Your task to perform on an android device: open app "Duolingo: language lessons" Image 0: 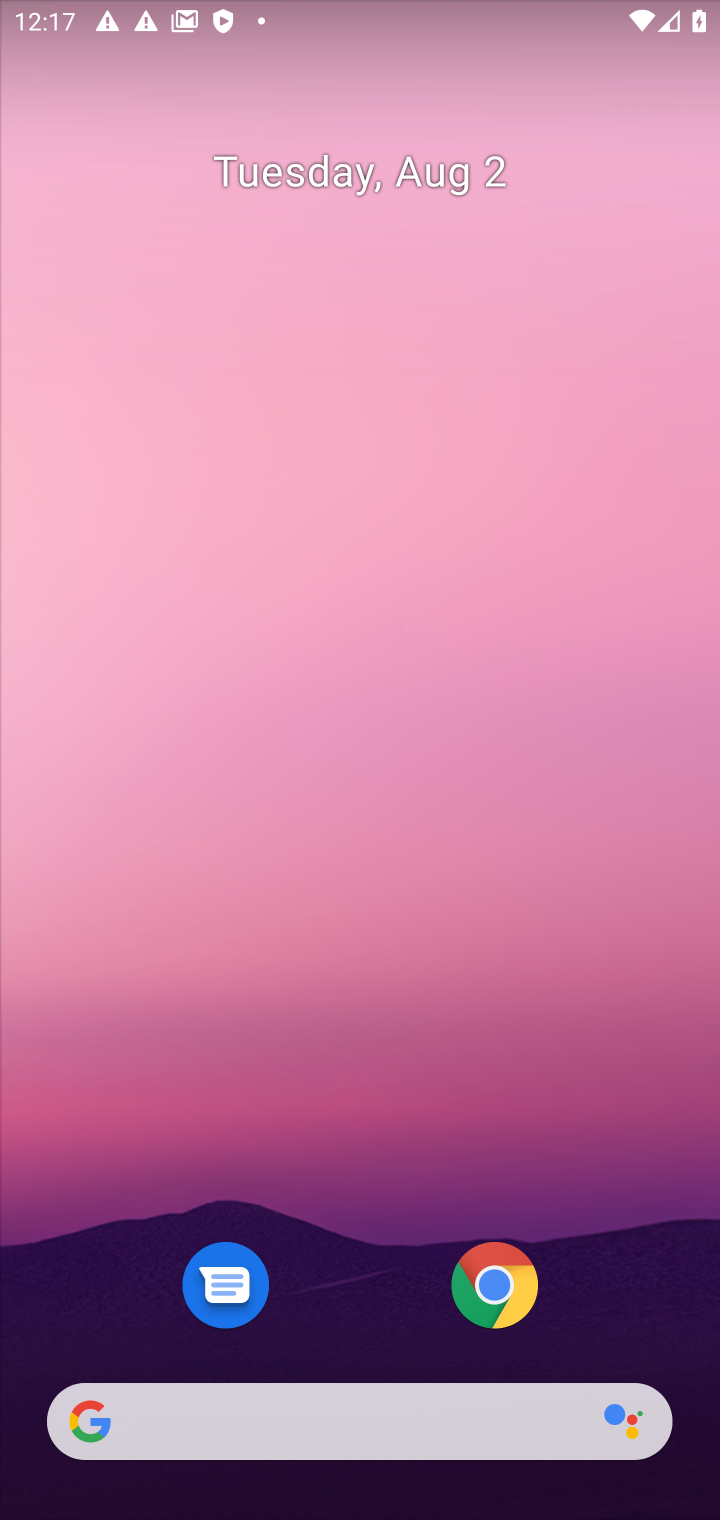
Step 0: click (546, 266)
Your task to perform on an android device: open app "Duolingo: language lessons" Image 1: 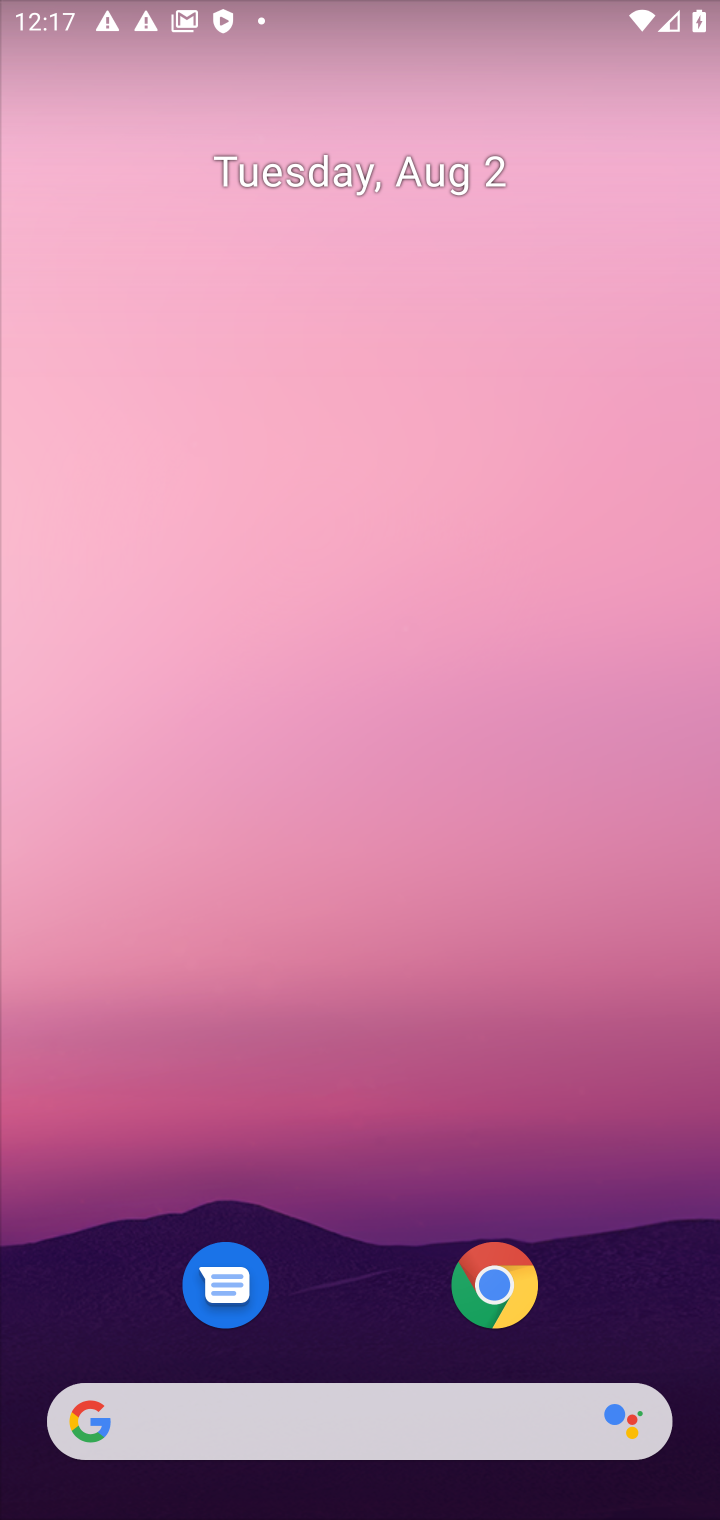
Step 1: drag from (374, 1248) to (433, 290)
Your task to perform on an android device: open app "Duolingo: language lessons" Image 2: 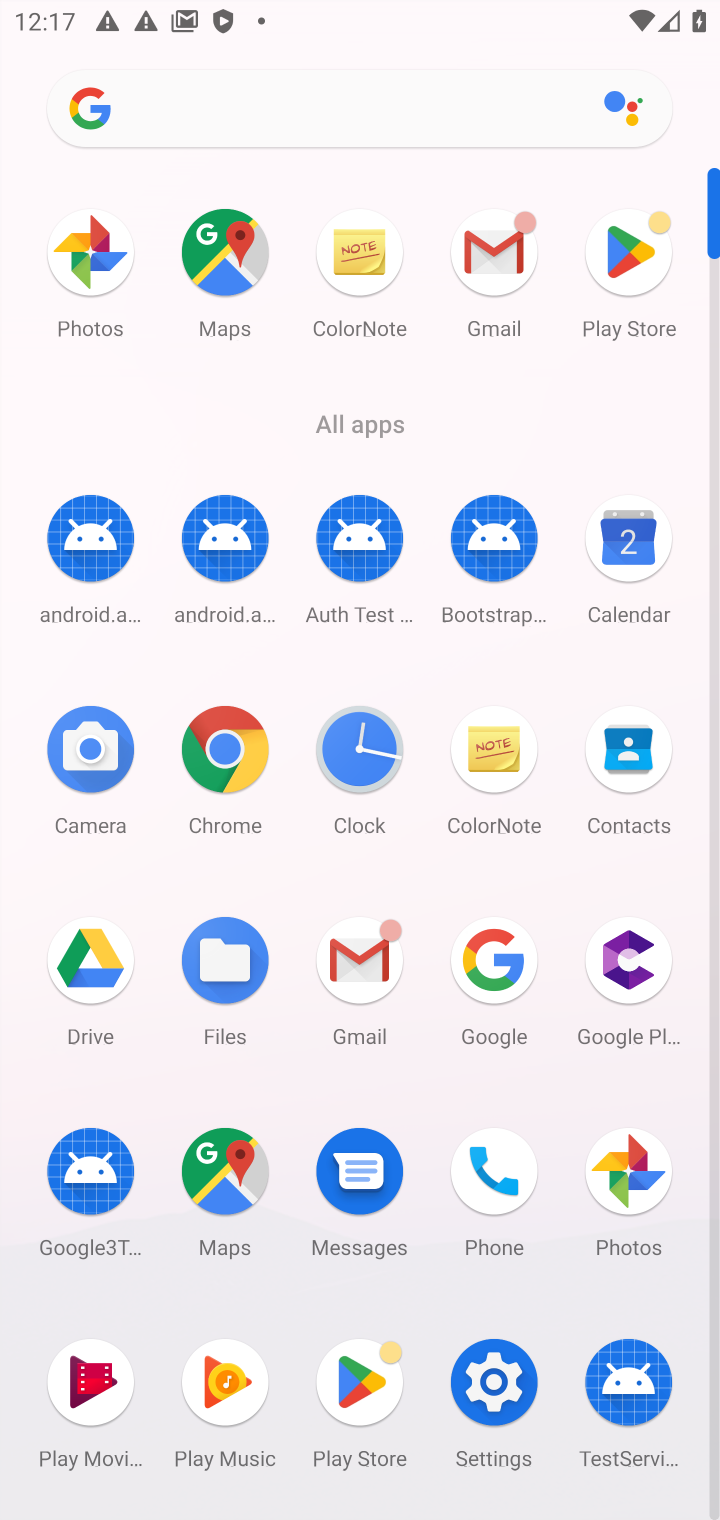
Step 2: click (367, 1377)
Your task to perform on an android device: open app "Duolingo: language lessons" Image 3: 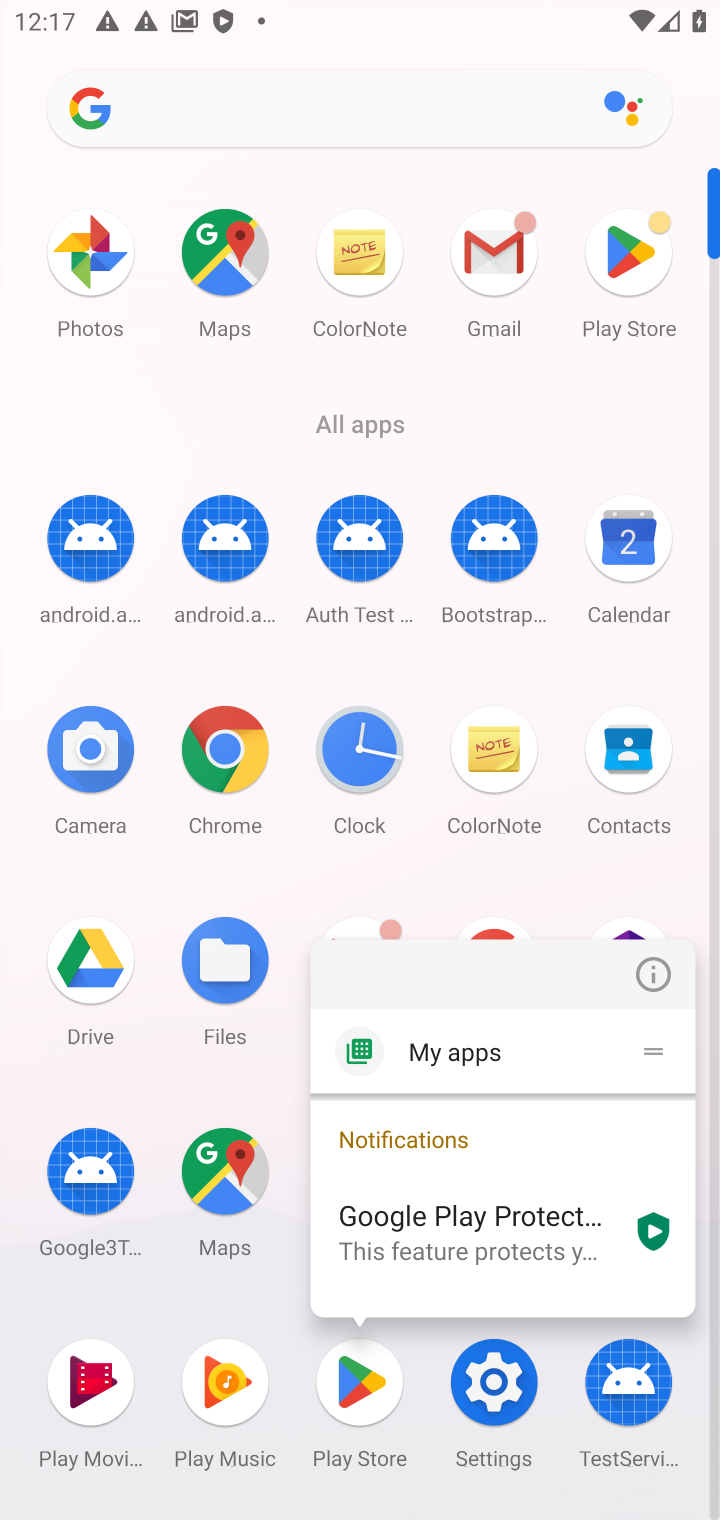
Step 3: click (351, 1369)
Your task to perform on an android device: open app "Duolingo: language lessons" Image 4: 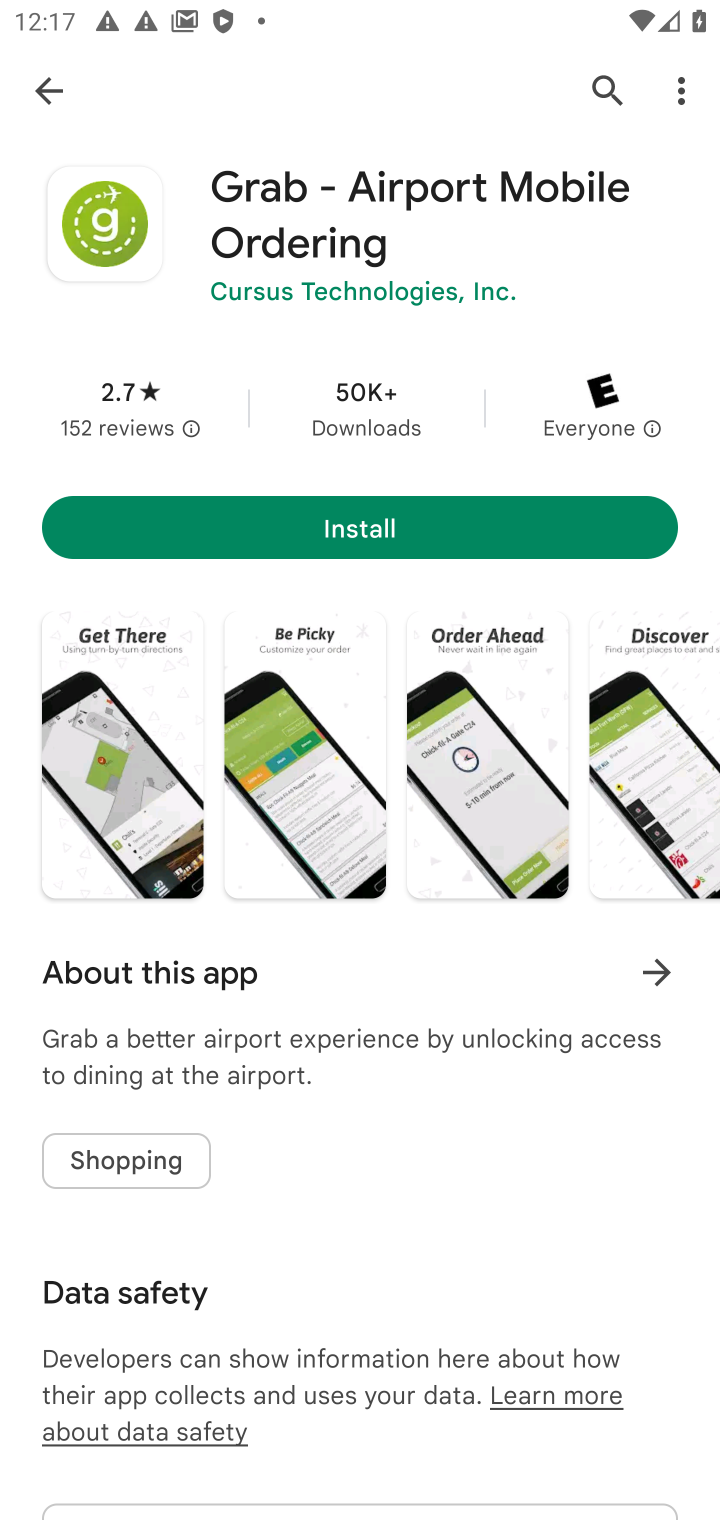
Step 4: click (609, 75)
Your task to perform on an android device: open app "Duolingo: language lessons" Image 5: 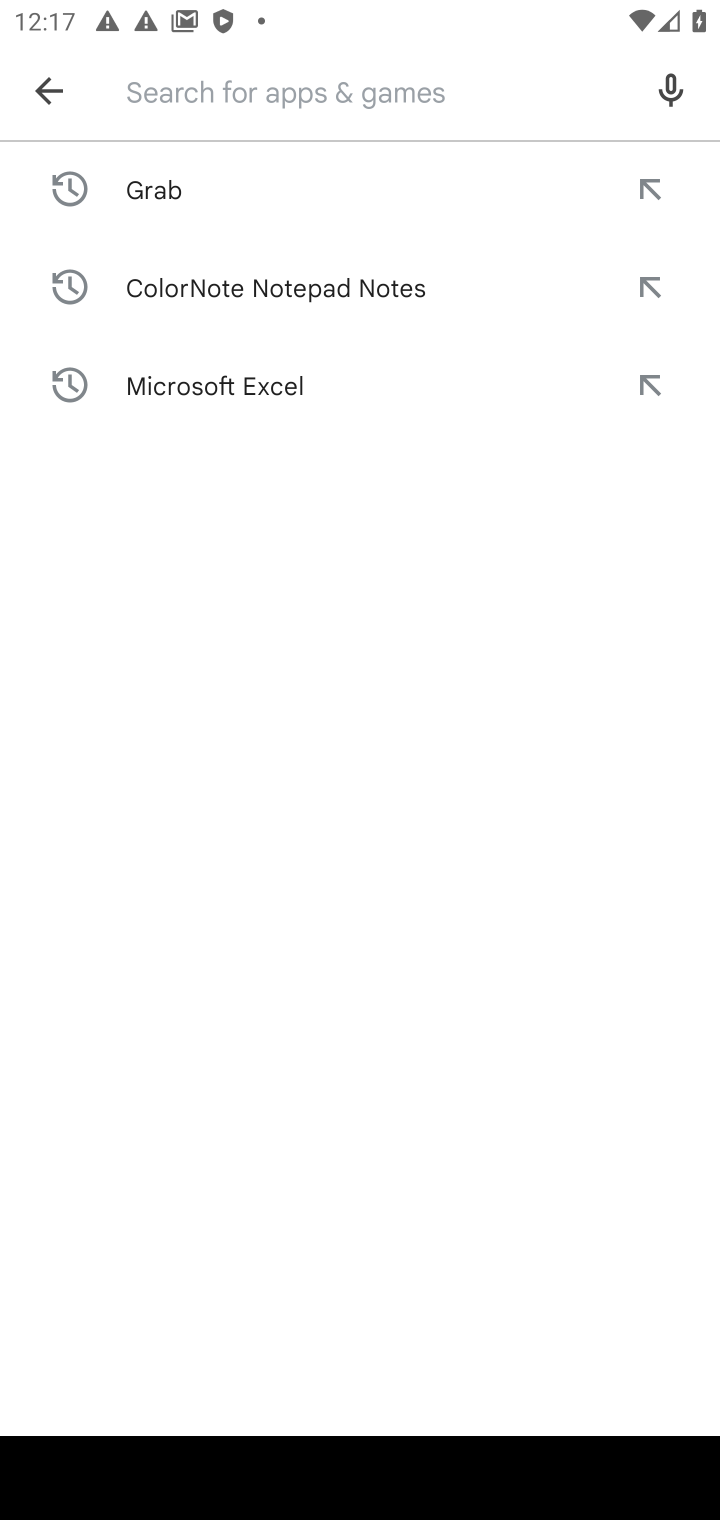
Step 5: type "Duolingo: language lessons"
Your task to perform on an android device: open app "Duolingo: language lessons" Image 6: 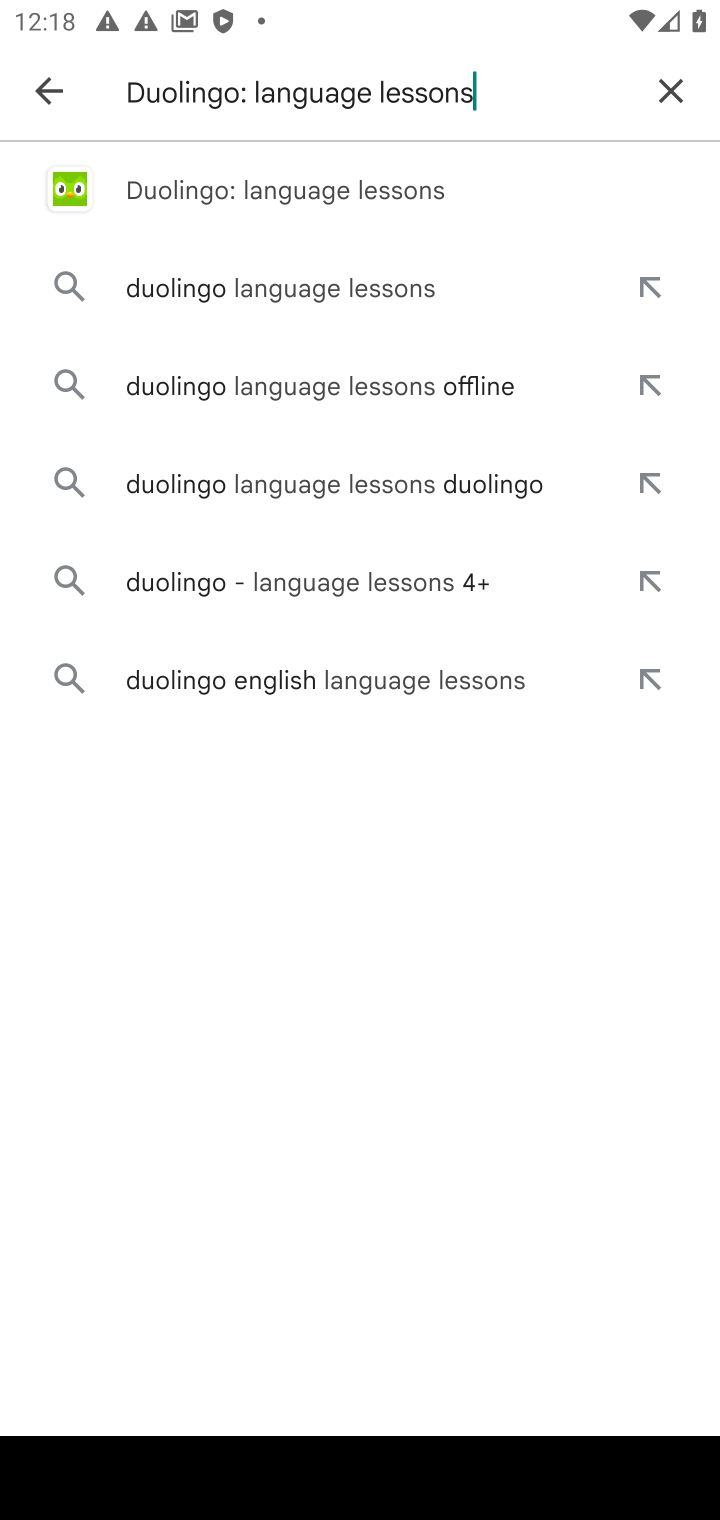
Step 6: press enter
Your task to perform on an android device: open app "Duolingo: language lessons" Image 7: 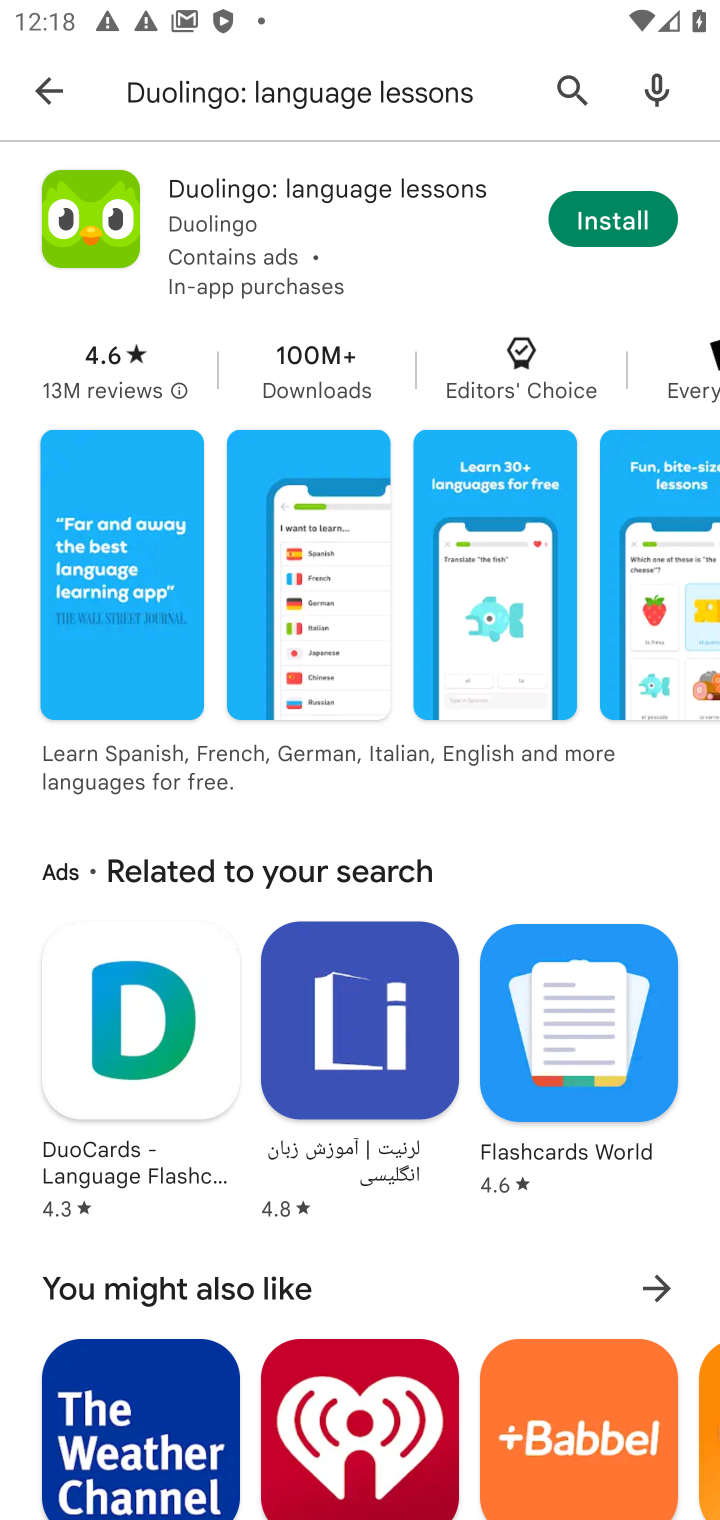
Step 7: click (211, 210)
Your task to perform on an android device: open app "Duolingo: language lessons" Image 8: 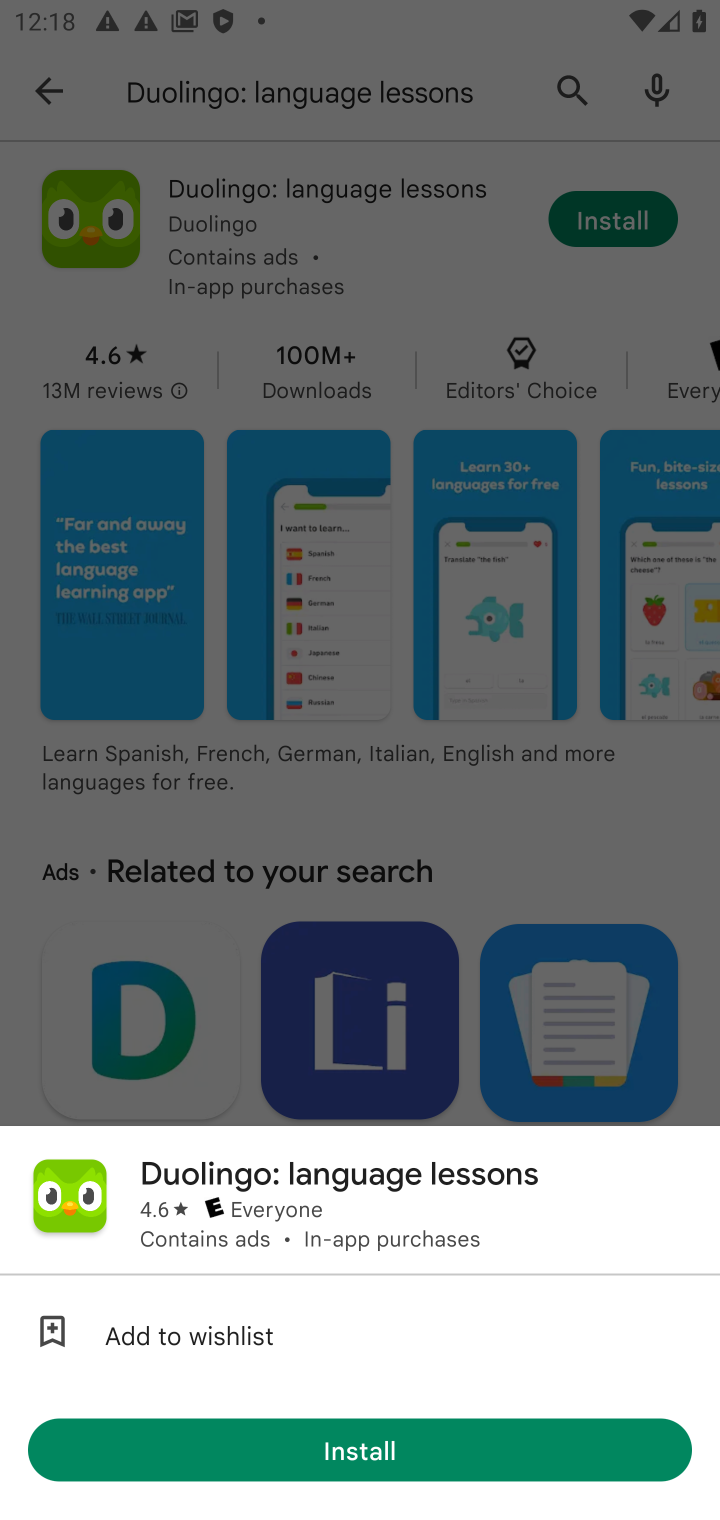
Step 8: task complete